Your task to perform on an android device: turn on showing notifications on the lock screen Image 0: 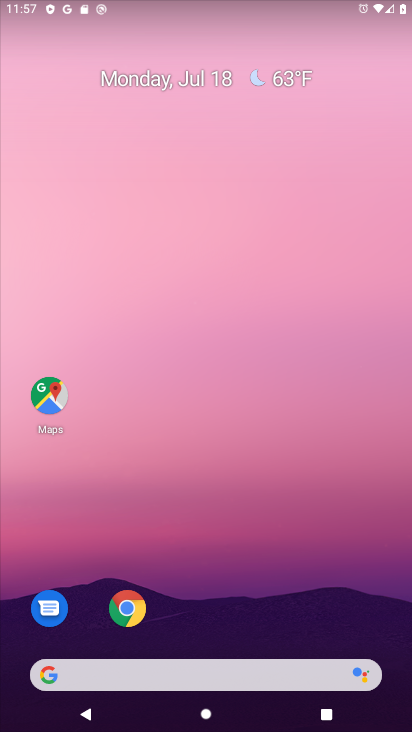
Step 0: drag from (234, 622) to (246, 149)
Your task to perform on an android device: turn on showing notifications on the lock screen Image 1: 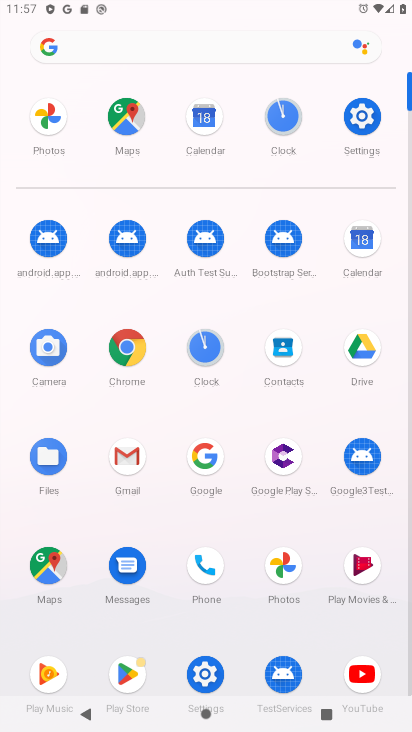
Step 1: click (367, 129)
Your task to perform on an android device: turn on showing notifications on the lock screen Image 2: 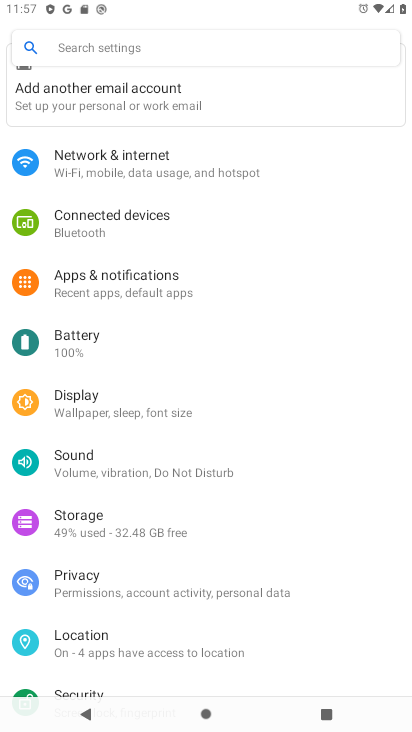
Step 2: click (162, 271)
Your task to perform on an android device: turn on showing notifications on the lock screen Image 3: 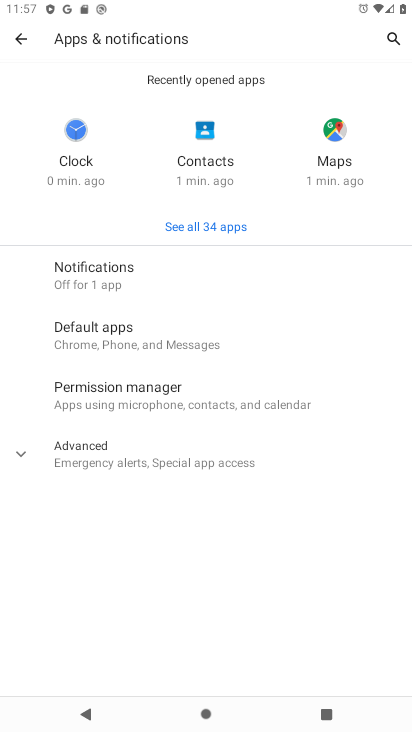
Step 3: click (147, 279)
Your task to perform on an android device: turn on showing notifications on the lock screen Image 4: 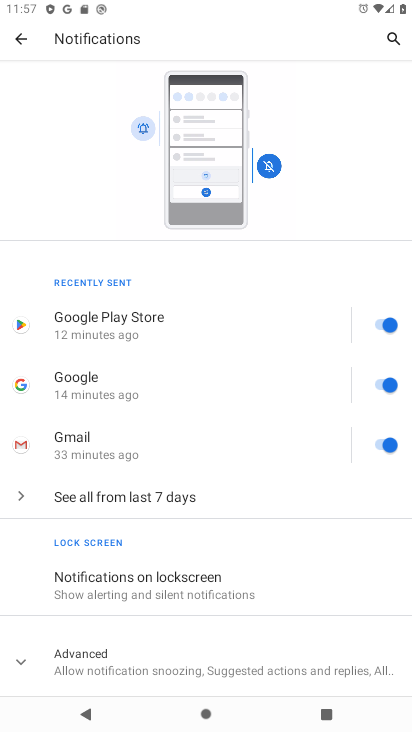
Step 4: click (127, 572)
Your task to perform on an android device: turn on showing notifications on the lock screen Image 5: 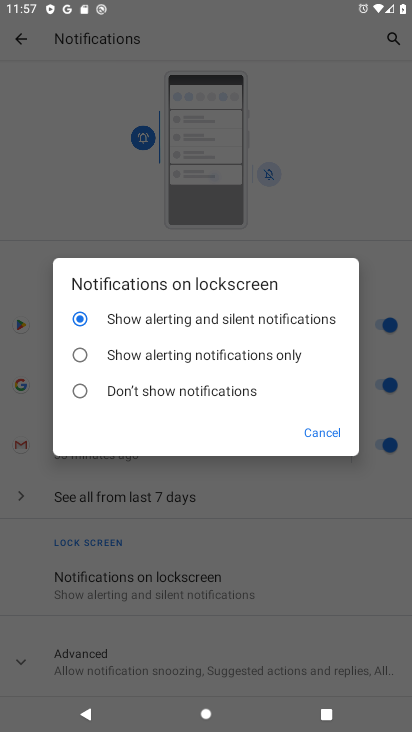
Step 5: click (207, 326)
Your task to perform on an android device: turn on showing notifications on the lock screen Image 6: 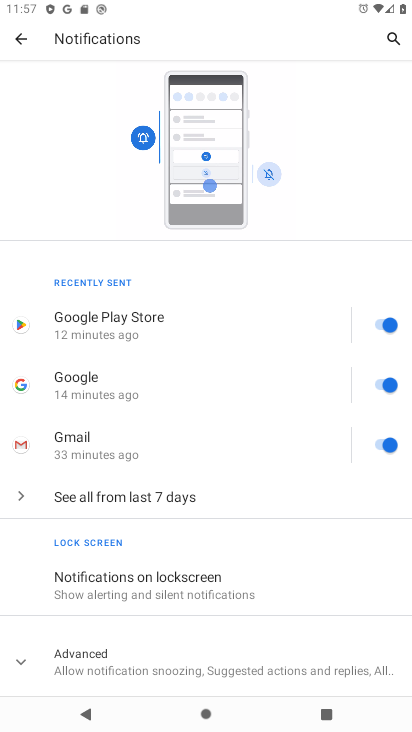
Step 6: task complete